Your task to perform on an android device: Open maps Image 0: 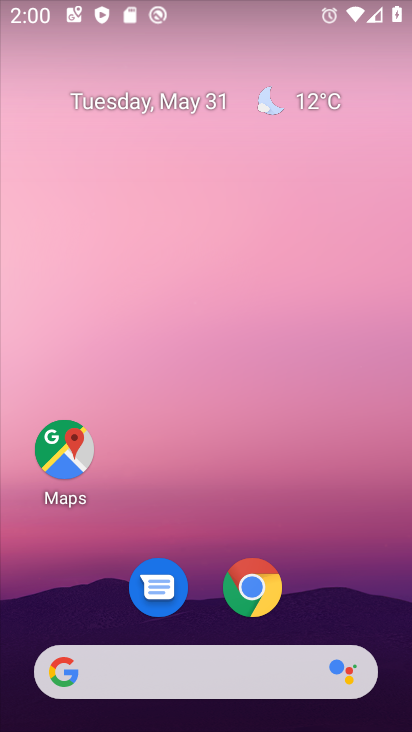
Step 0: click (271, 178)
Your task to perform on an android device: Open maps Image 1: 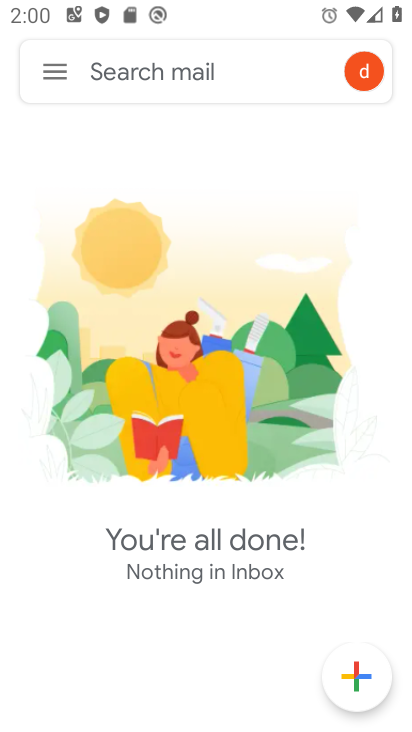
Step 1: click (244, 189)
Your task to perform on an android device: Open maps Image 2: 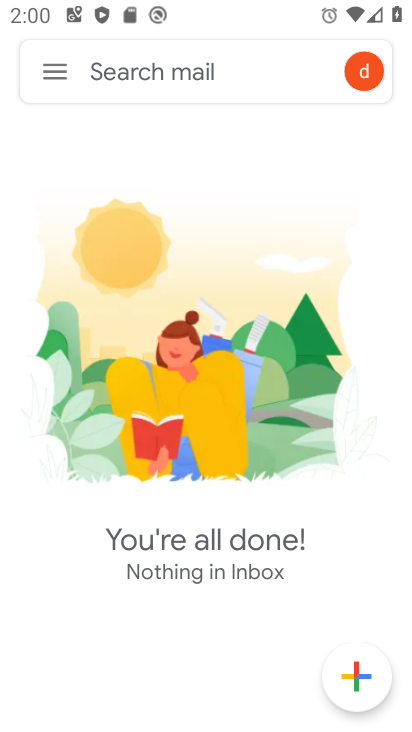
Step 2: press home button
Your task to perform on an android device: Open maps Image 3: 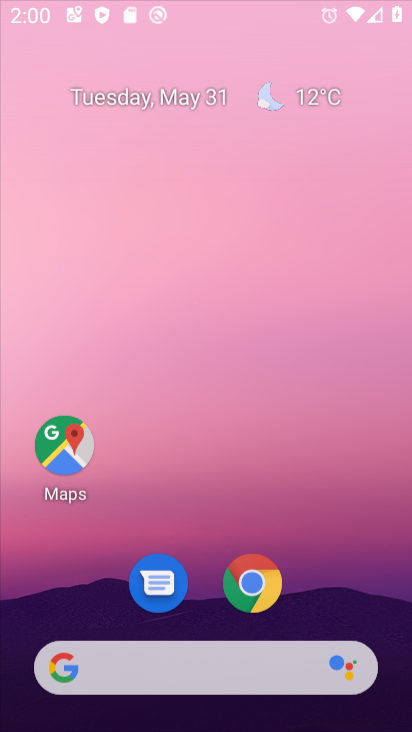
Step 3: drag from (237, 523) to (115, 11)
Your task to perform on an android device: Open maps Image 4: 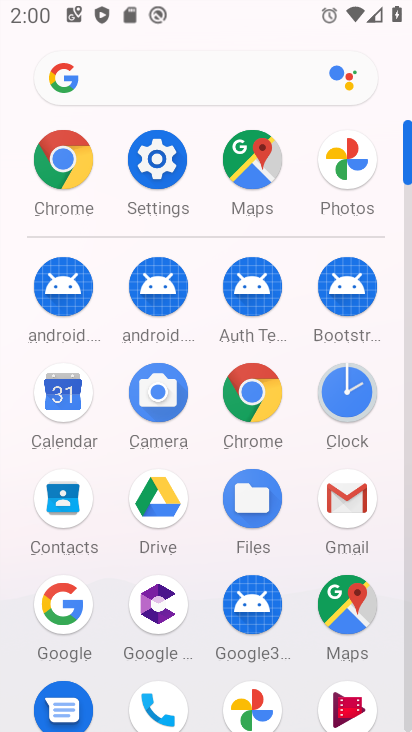
Step 4: click (319, 621)
Your task to perform on an android device: Open maps Image 5: 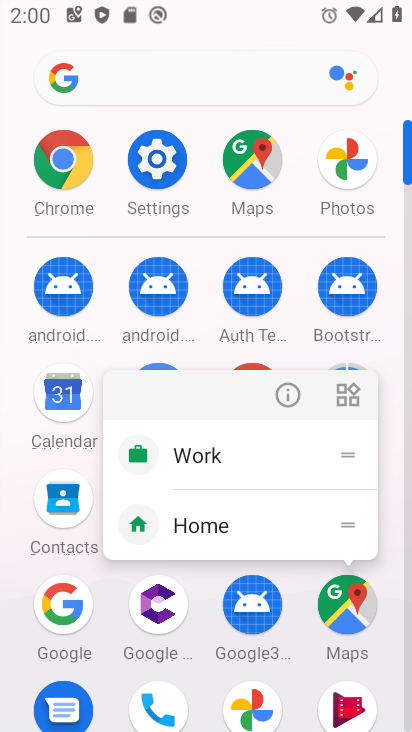
Step 5: click (284, 382)
Your task to perform on an android device: Open maps Image 6: 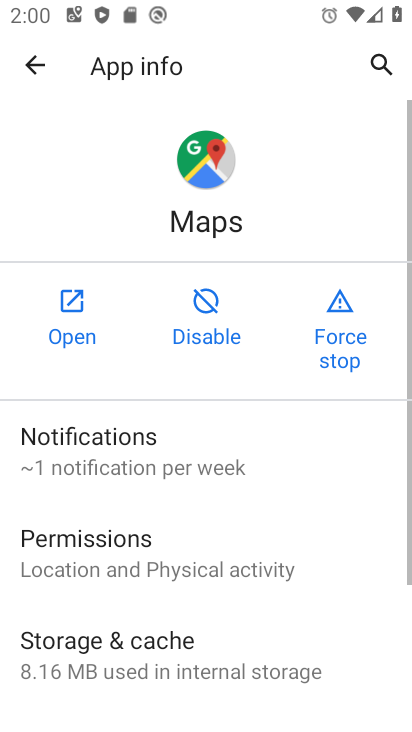
Step 6: click (64, 296)
Your task to perform on an android device: Open maps Image 7: 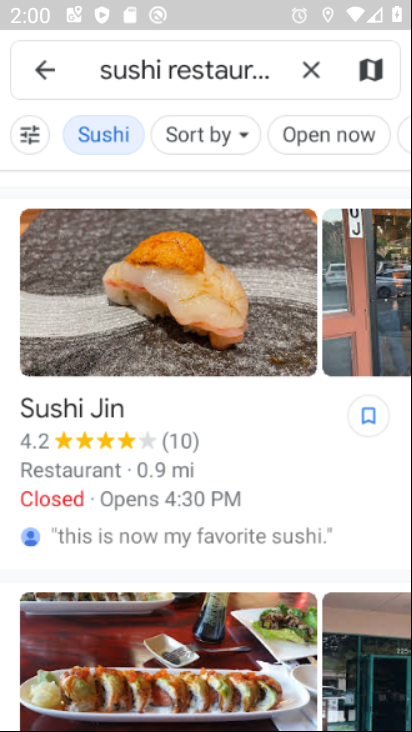
Step 7: task complete